Your task to perform on an android device: Search for pizza restaurants on Maps Image 0: 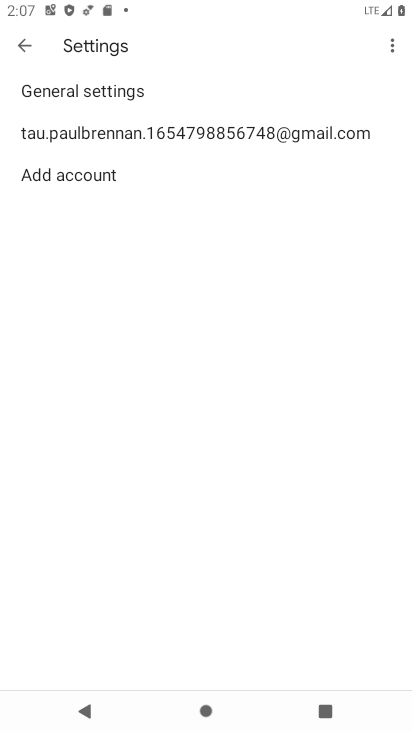
Step 0: press home button
Your task to perform on an android device: Search for pizza restaurants on Maps Image 1: 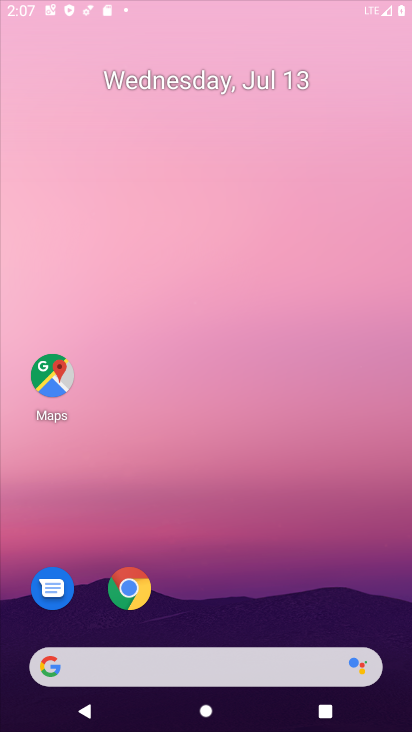
Step 1: drag from (195, 489) to (276, 113)
Your task to perform on an android device: Search for pizza restaurants on Maps Image 2: 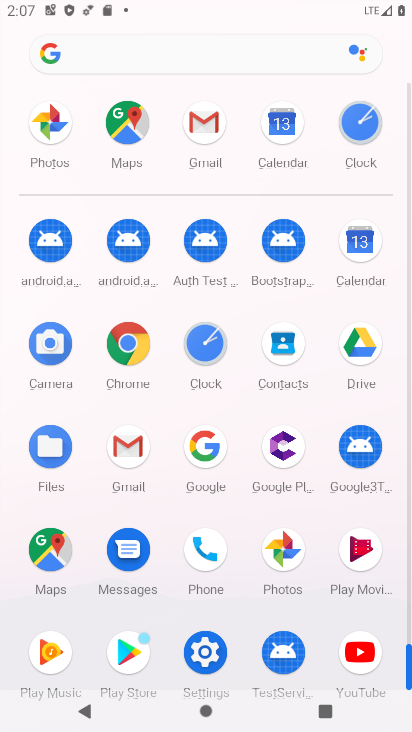
Step 2: click (58, 546)
Your task to perform on an android device: Search for pizza restaurants on Maps Image 3: 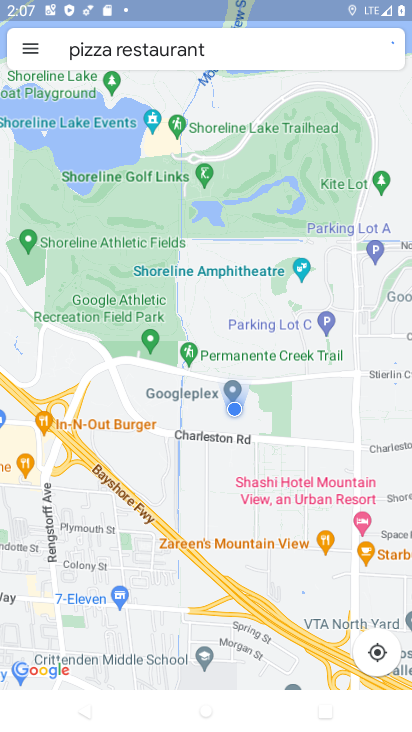
Step 3: task complete